Your task to perform on an android device: Open Amazon Image 0: 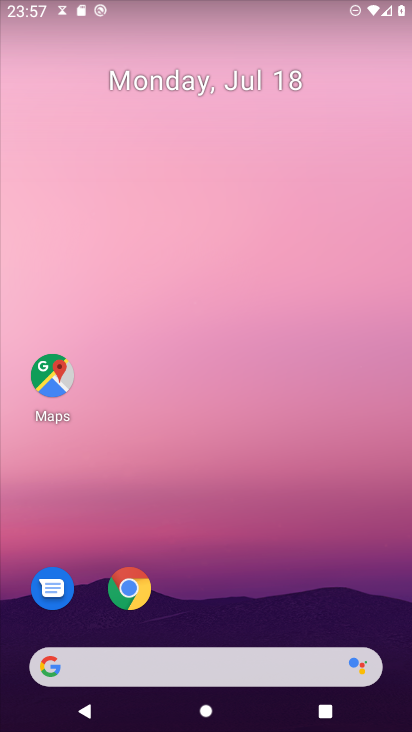
Step 0: press home button
Your task to perform on an android device: Open Amazon Image 1: 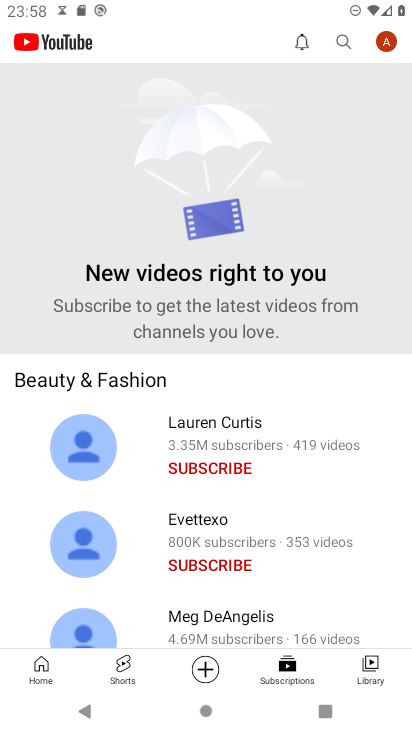
Step 1: drag from (237, 579) to (411, 364)
Your task to perform on an android device: Open Amazon Image 2: 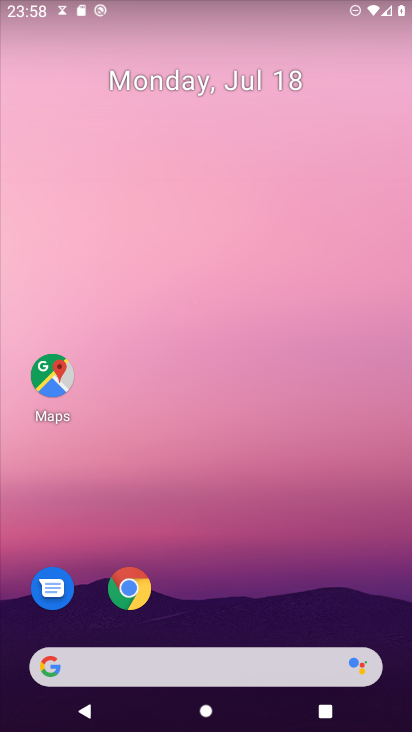
Step 2: click (43, 662)
Your task to perform on an android device: Open Amazon Image 3: 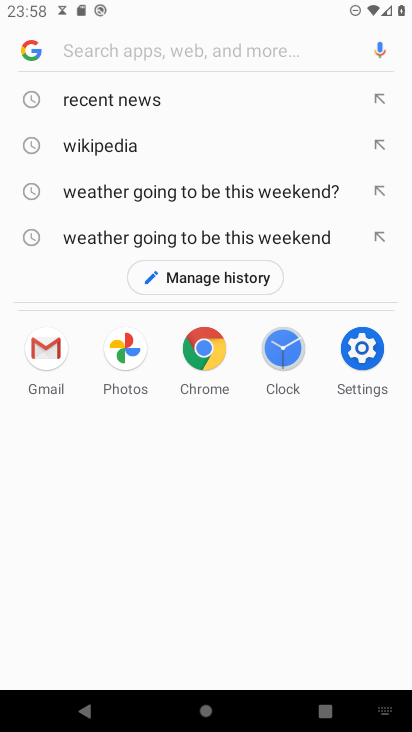
Step 3: type "Amazon"
Your task to perform on an android device: Open Amazon Image 4: 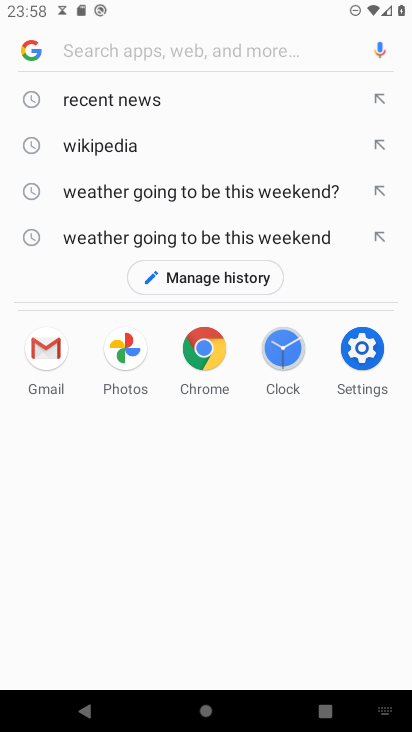
Step 4: click (103, 43)
Your task to perform on an android device: Open Amazon Image 5: 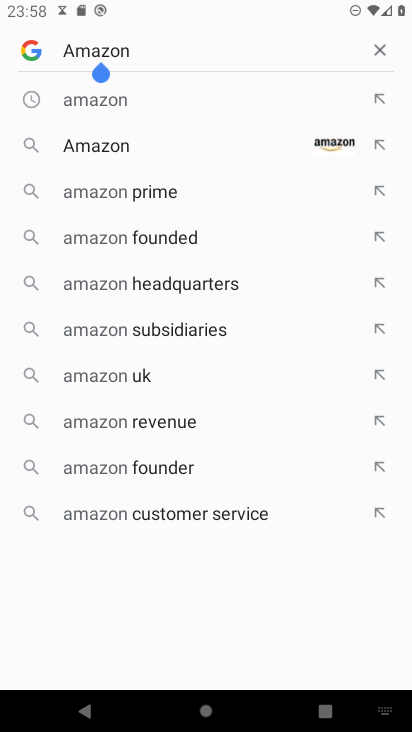
Step 5: press enter
Your task to perform on an android device: Open Amazon Image 6: 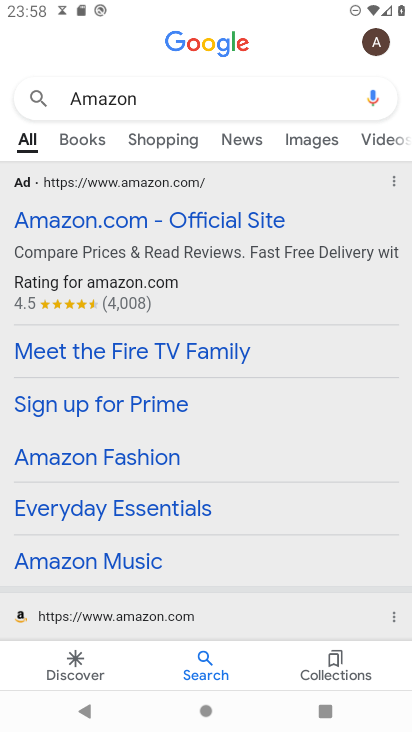
Step 6: click (74, 614)
Your task to perform on an android device: Open Amazon Image 7: 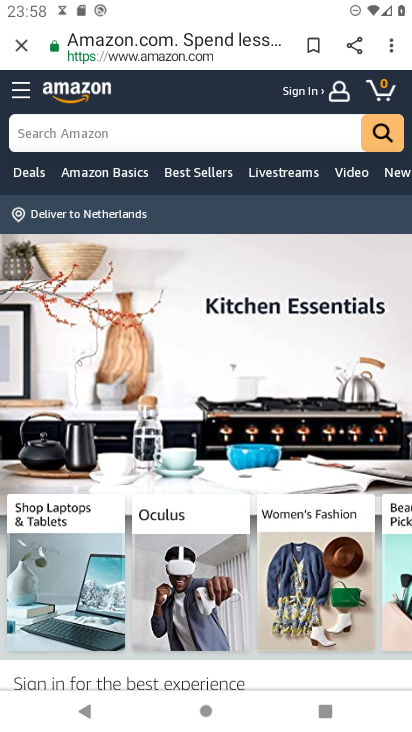
Step 7: task complete